Your task to perform on an android device: move a message to another label in the gmail app Image 0: 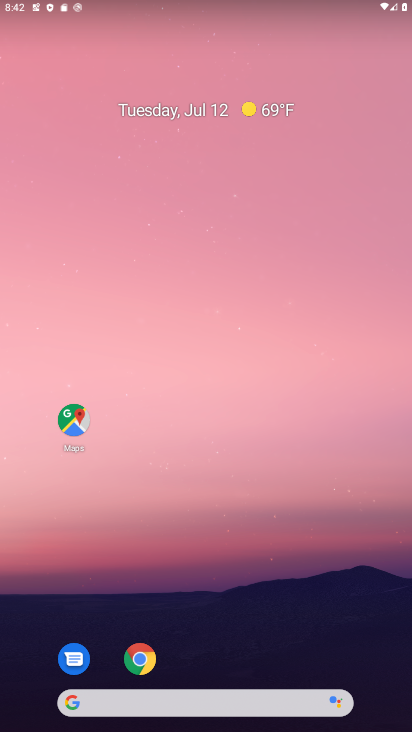
Step 0: click (243, 701)
Your task to perform on an android device: move a message to another label in the gmail app Image 1: 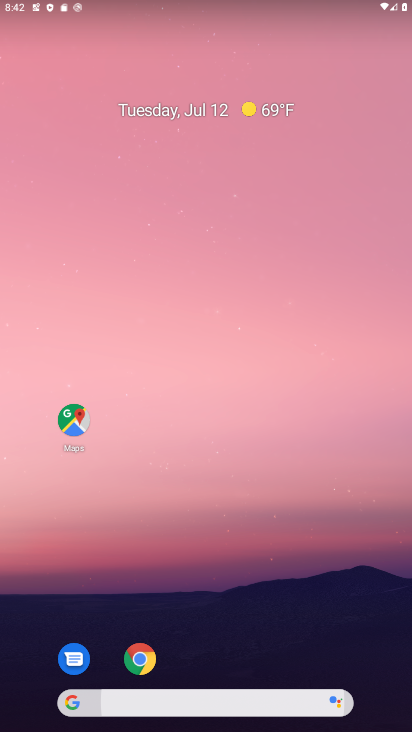
Step 1: click (251, 216)
Your task to perform on an android device: move a message to another label in the gmail app Image 2: 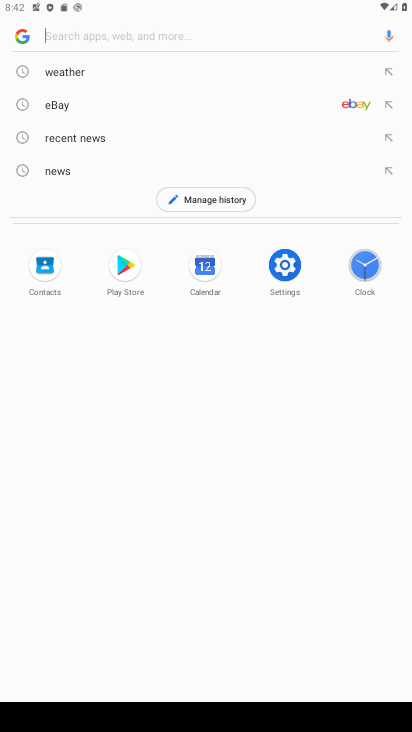
Step 2: press home button
Your task to perform on an android device: move a message to another label in the gmail app Image 3: 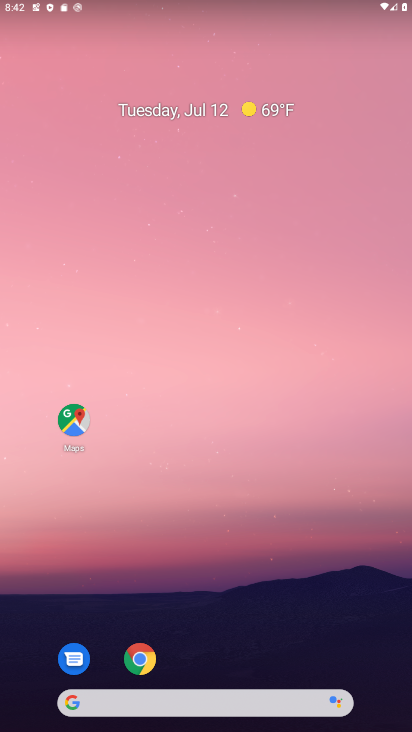
Step 3: drag from (206, 713) to (219, 241)
Your task to perform on an android device: move a message to another label in the gmail app Image 4: 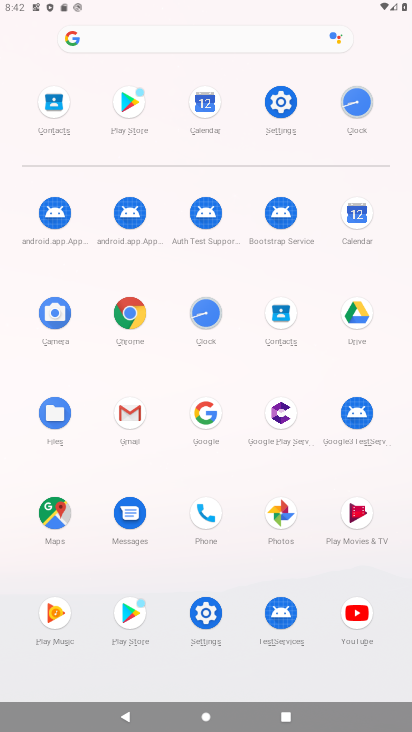
Step 4: click (135, 418)
Your task to perform on an android device: move a message to another label in the gmail app Image 5: 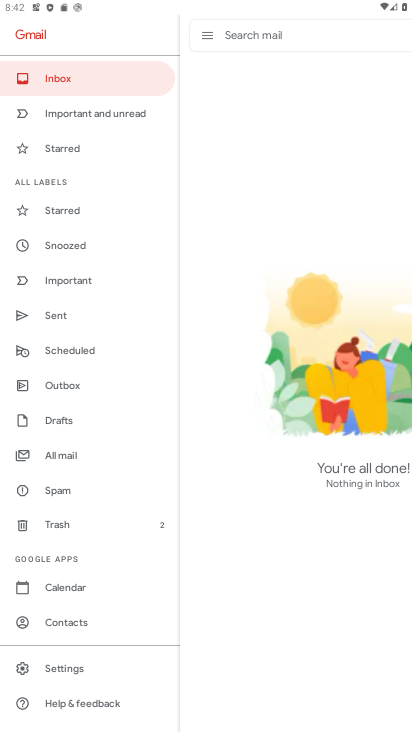
Step 5: click (58, 77)
Your task to perform on an android device: move a message to another label in the gmail app Image 6: 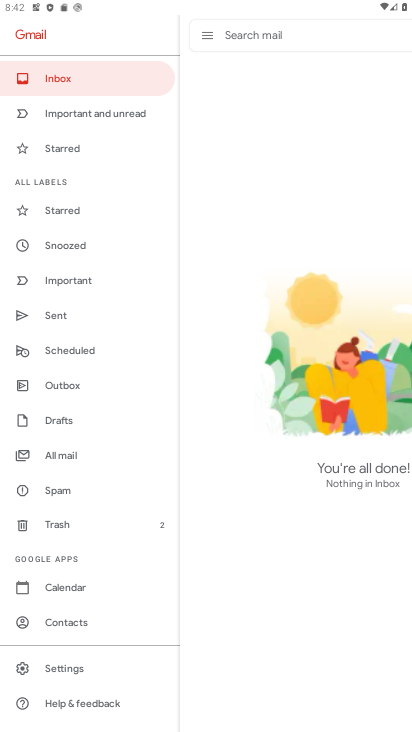
Step 6: task complete